Your task to perform on an android device: What is the recent news? Image 0: 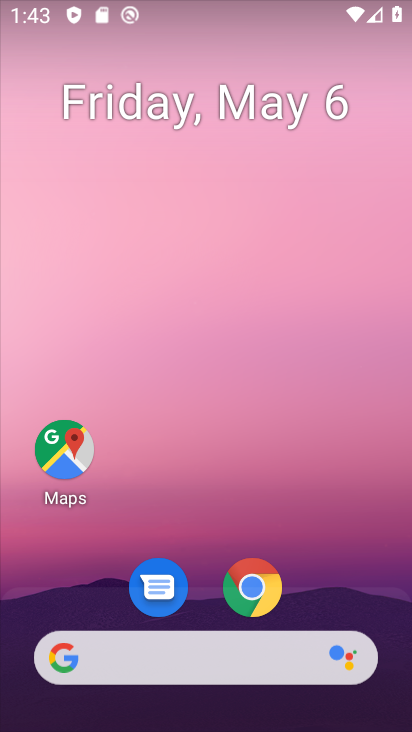
Step 0: drag from (313, 621) to (372, 105)
Your task to perform on an android device: What is the recent news? Image 1: 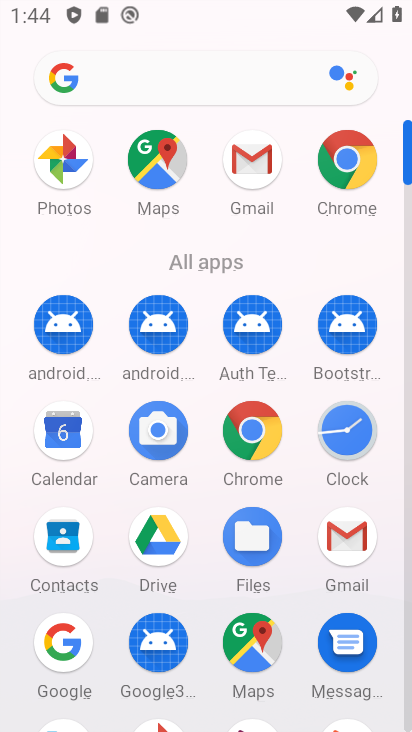
Step 1: click (187, 86)
Your task to perform on an android device: What is the recent news? Image 2: 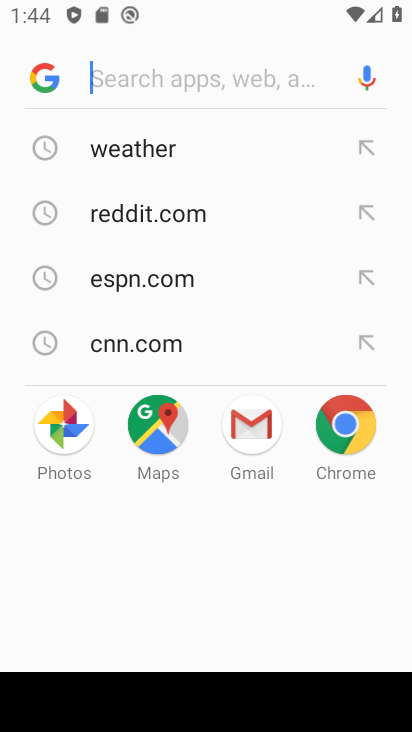
Step 2: type "what is the recent news"
Your task to perform on an android device: What is the recent news? Image 3: 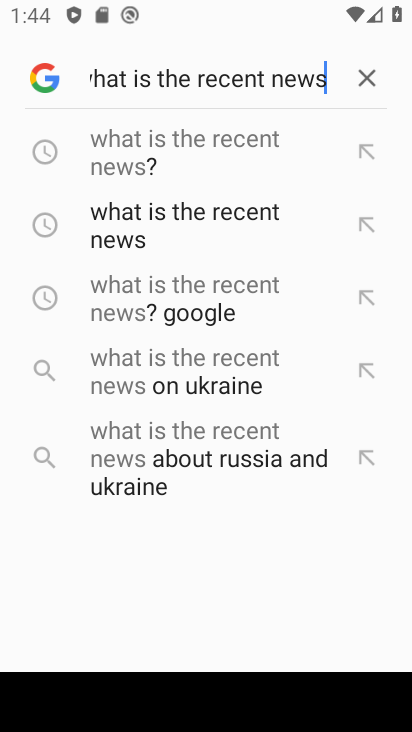
Step 3: click (116, 143)
Your task to perform on an android device: What is the recent news? Image 4: 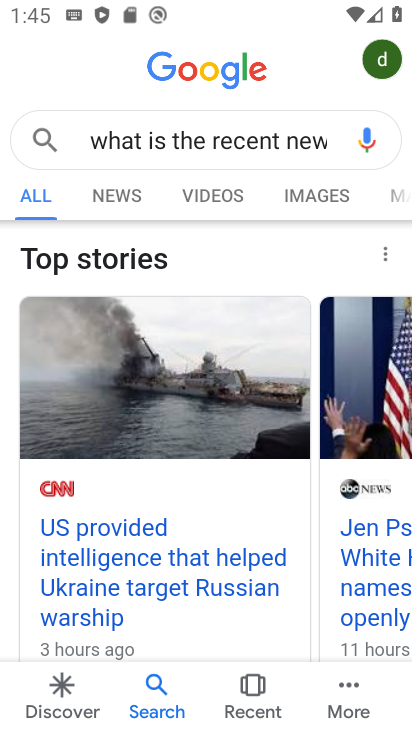
Step 4: click (105, 207)
Your task to perform on an android device: What is the recent news? Image 5: 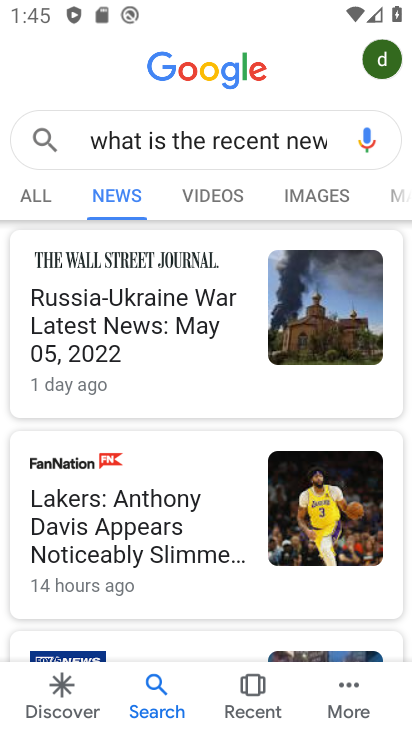
Step 5: task complete